Your task to perform on an android device: clear all cookies in the chrome app Image 0: 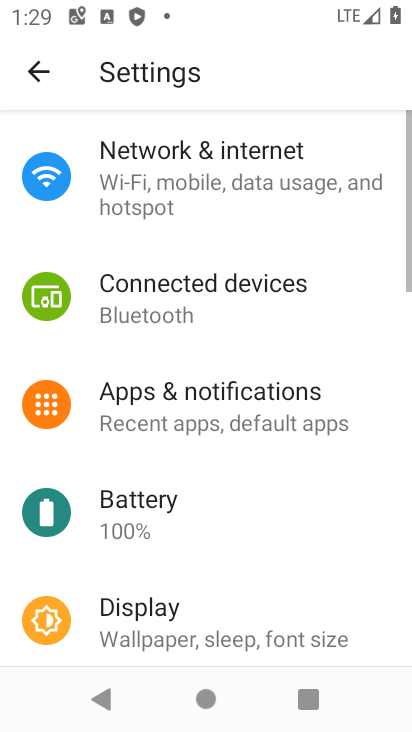
Step 0: press home button
Your task to perform on an android device: clear all cookies in the chrome app Image 1: 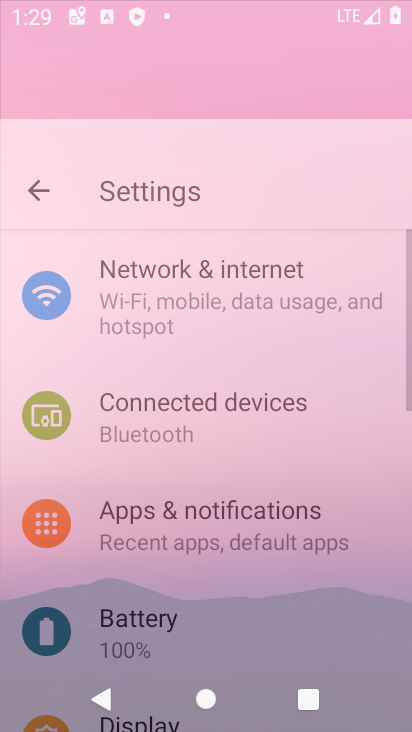
Step 1: drag from (350, 573) to (296, 2)
Your task to perform on an android device: clear all cookies in the chrome app Image 2: 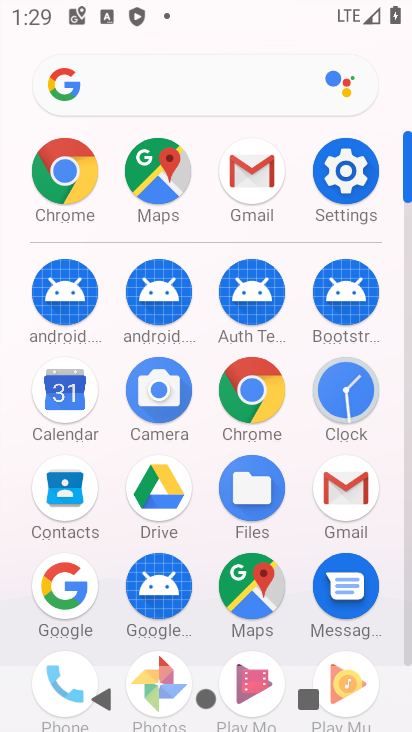
Step 2: click (77, 161)
Your task to perform on an android device: clear all cookies in the chrome app Image 3: 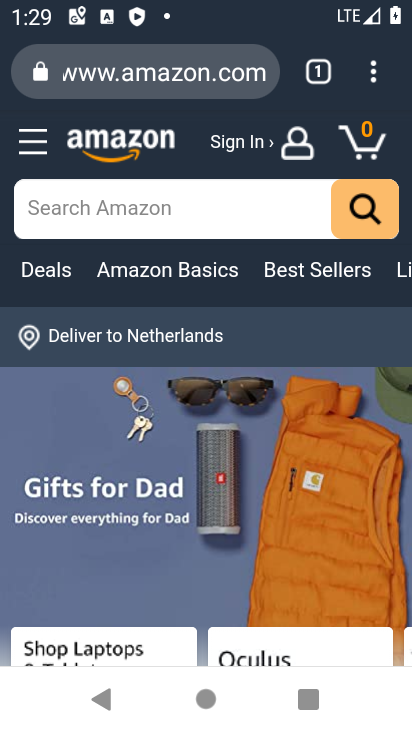
Step 3: press back button
Your task to perform on an android device: clear all cookies in the chrome app Image 4: 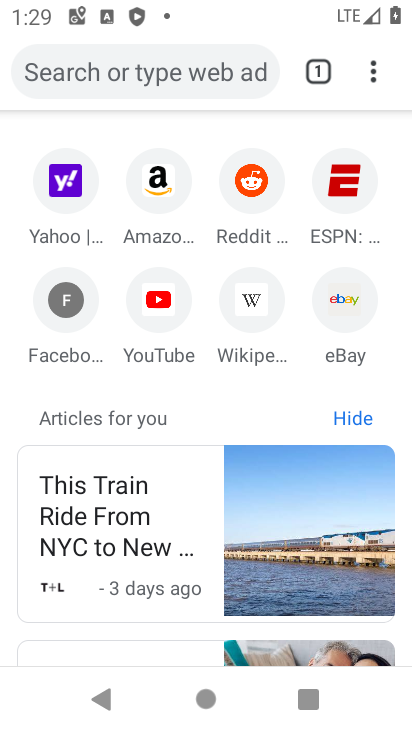
Step 4: click (371, 63)
Your task to perform on an android device: clear all cookies in the chrome app Image 5: 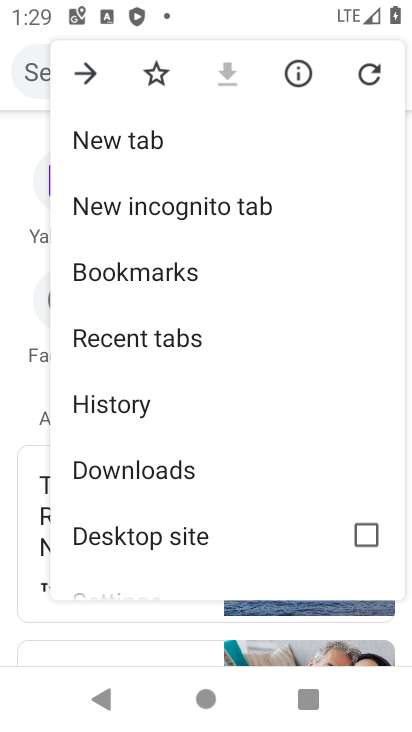
Step 5: click (113, 408)
Your task to perform on an android device: clear all cookies in the chrome app Image 6: 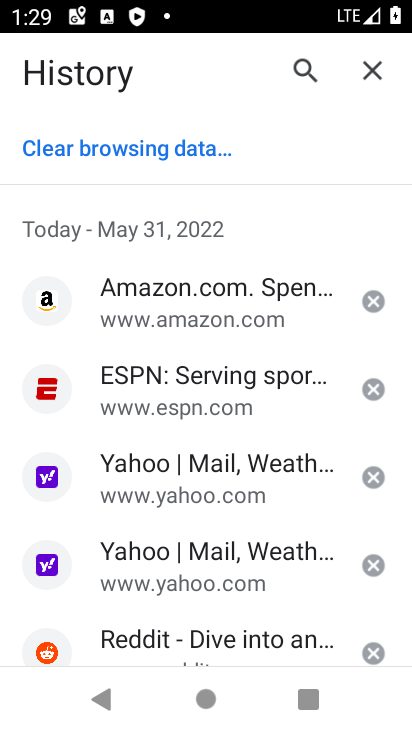
Step 6: click (142, 164)
Your task to perform on an android device: clear all cookies in the chrome app Image 7: 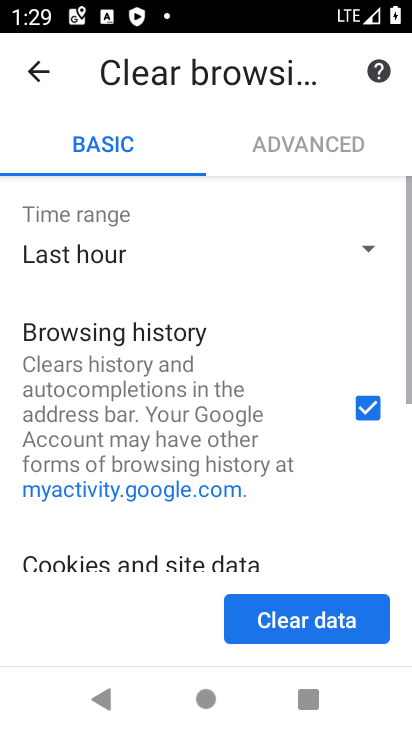
Step 7: click (309, 612)
Your task to perform on an android device: clear all cookies in the chrome app Image 8: 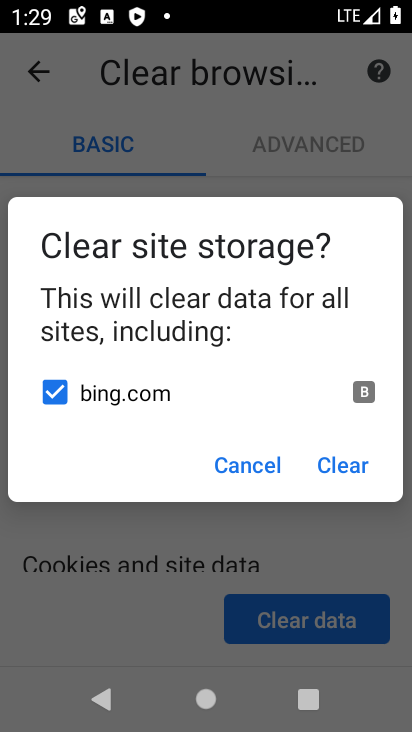
Step 8: click (329, 466)
Your task to perform on an android device: clear all cookies in the chrome app Image 9: 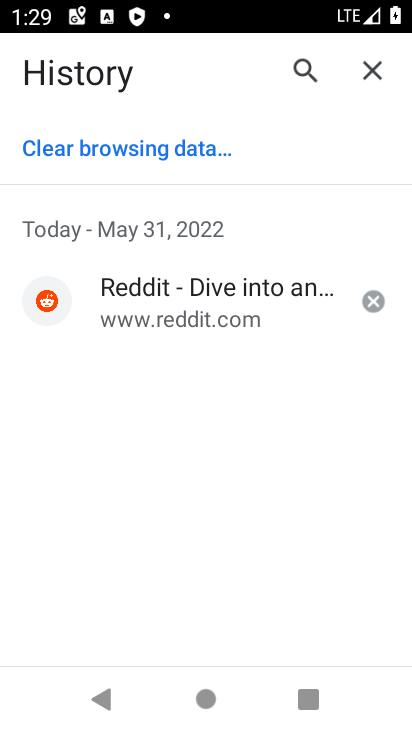
Step 9: click (156, 144)
Your task to perform on an android device: clear all cookies in the chrome app Image 10: 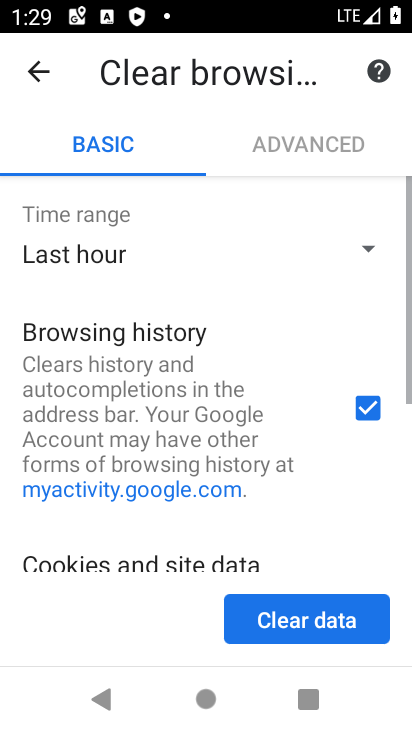
Step 10: drag from (220, 448) to (199, 133)
Your task to perform on an android device: clear all cookies in the chrome app Image 11: 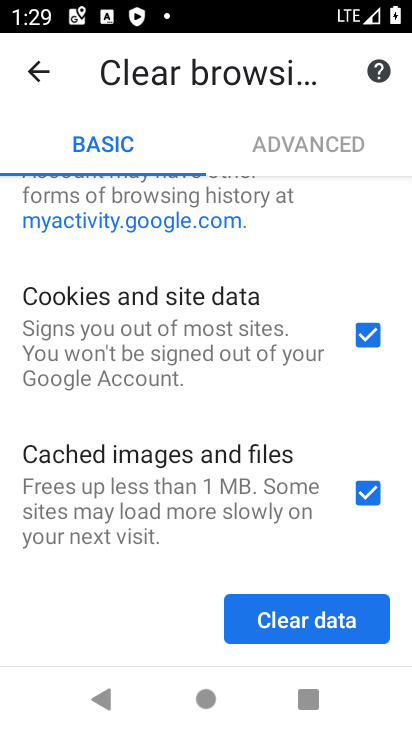
Step 11: click (282, 615)
Your task to perform on an android device: clear all cookies in the chrome app Image 12: 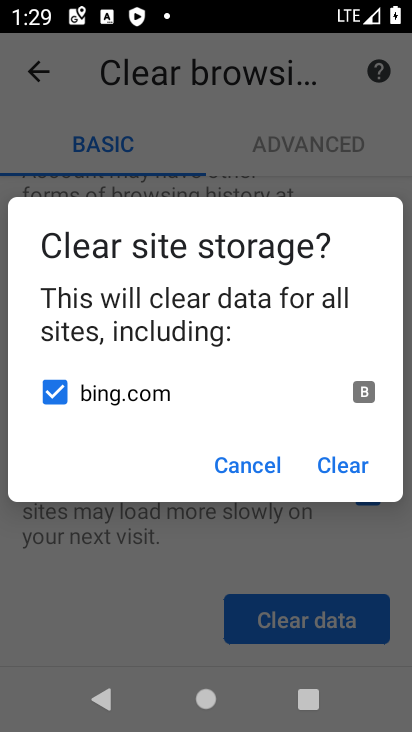
Step 12: click (341, 453)
Your task to perform on an android device: clear all cookies in the chrome app Image 13: 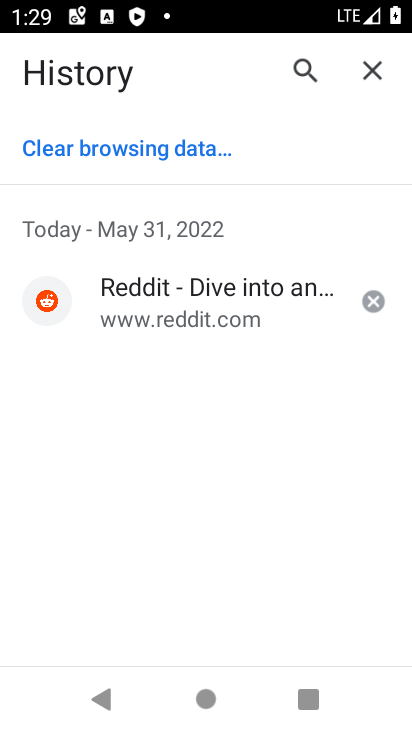
Step 13: task complete